Your task to perform on an android device: turn off location history Image 0: 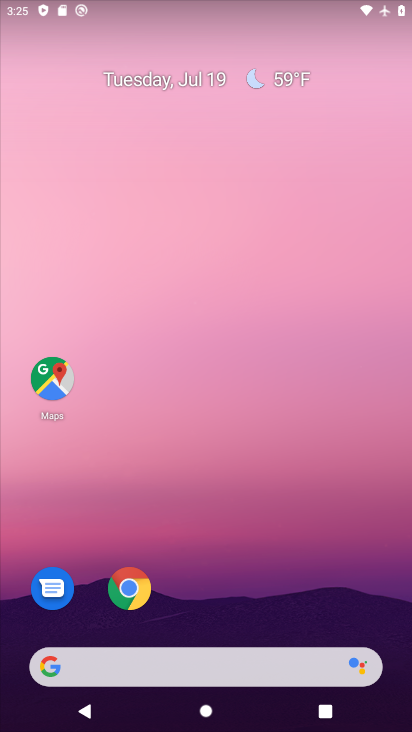
Step 0: press home button
Your task to perform on an android device: turn off location history Image 1: 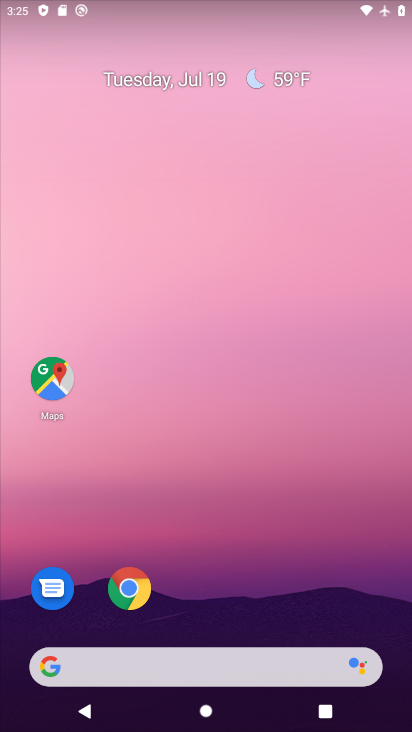
Step 1: drag from (281, 591) to (357, 40)
Your task to perform on an android device: turn off location history Image 2: 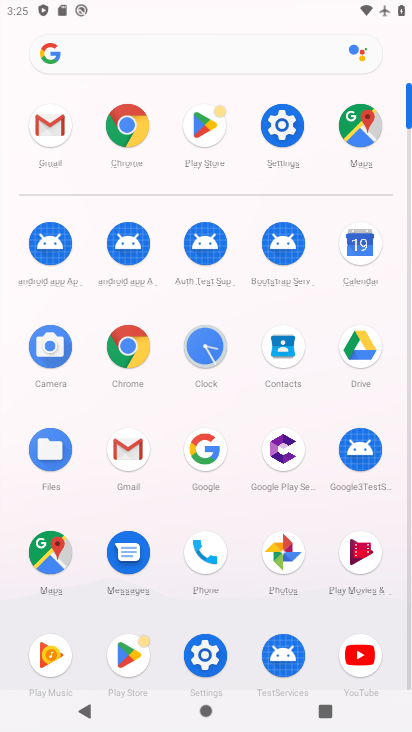
Step 2: click (282, 142)
Your task to perform on an android device: turn off location history Image 3: 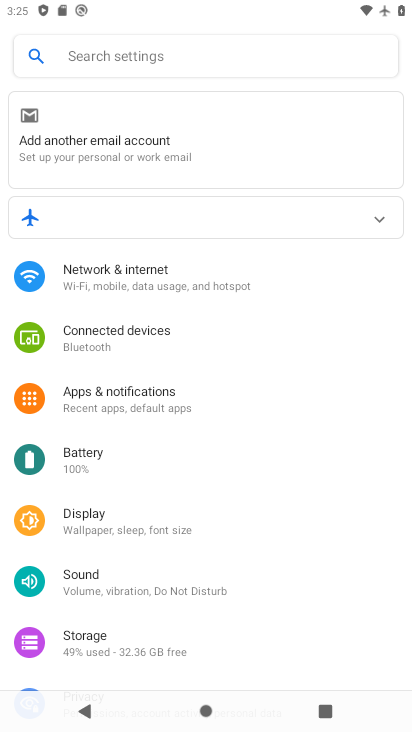
Step 3: drag from (321, 322) to (317, 228)
Your task to perform on an android device: turn off location history Image 4: 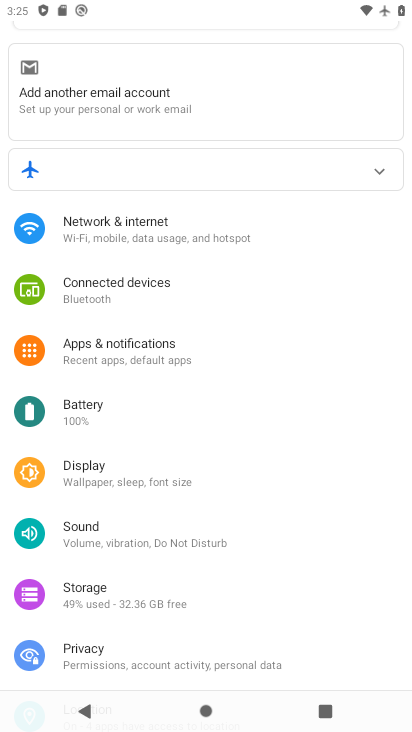
Step 4: drag from (296, 624) to (306, 252)
Your task to perform on an android device: turn off location history Image 5: 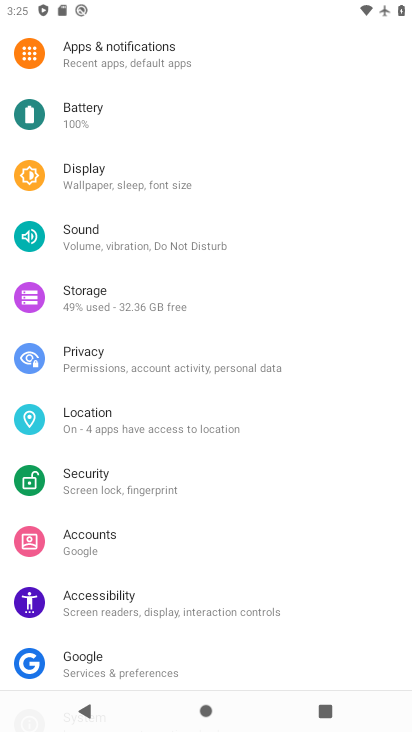
Step 5: click (91, 425)
Your task to perform on an android device: turn off location history Image 6: 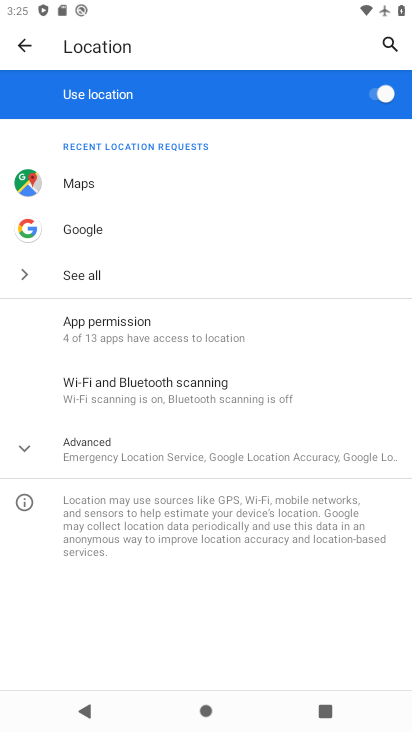
Step 6: click (78, 454)
Your task to perform on an android device: turn off location history Image 7: 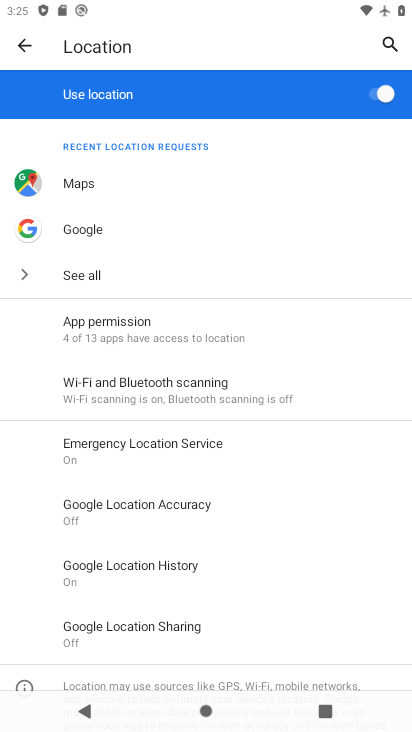
Step 7: click (124, 571)
Your task to perform on an android device: turn off location history Image 8: 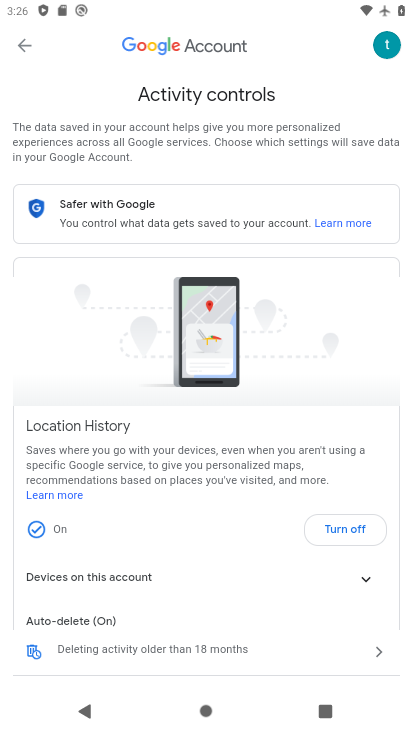
Step 8: click (340, 528)
Your task to perform on an android device: turn off location history Image 9: 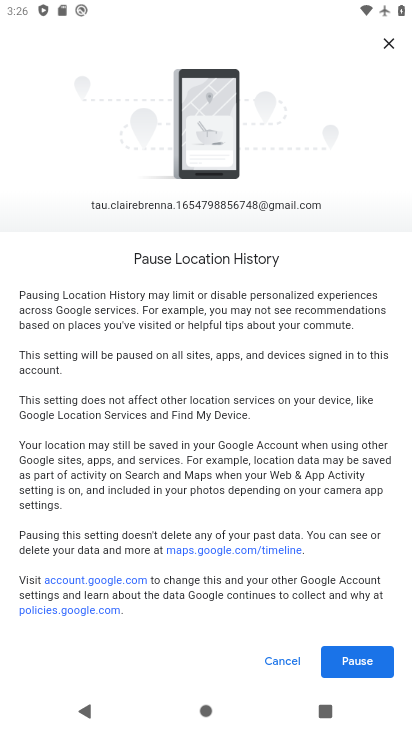
Step 9: click (351, 662)
Your task to perform on an android device: turn off location history Image 10: 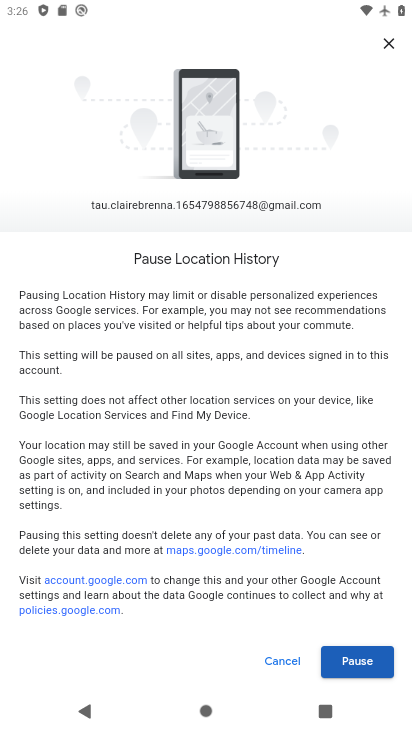
Step 10: click (338, 661)
Your task to perform on an android device: turn off location history Image 11: 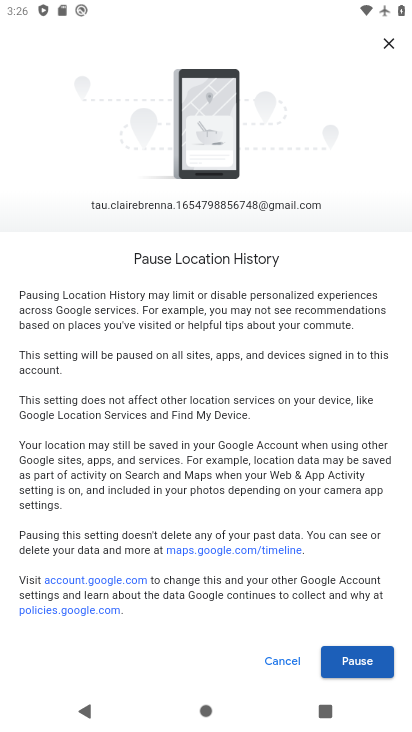
Step 11: click (348, 667)
Your task to perform on an android device: turn off location history Image 12: 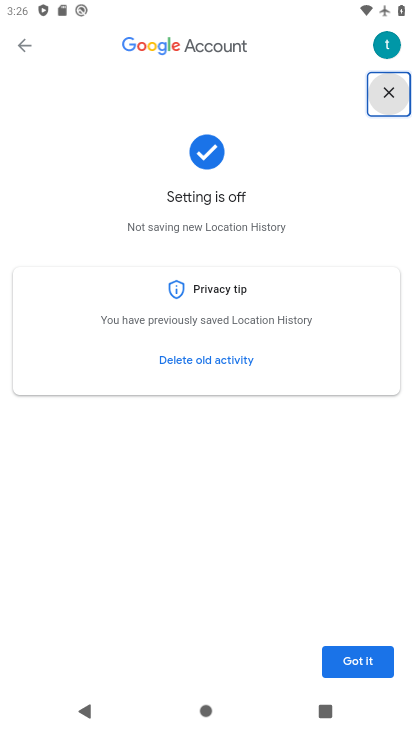
Step 12: click (349, 665)
Your task to perform on an android device: turn off location history Image 13: 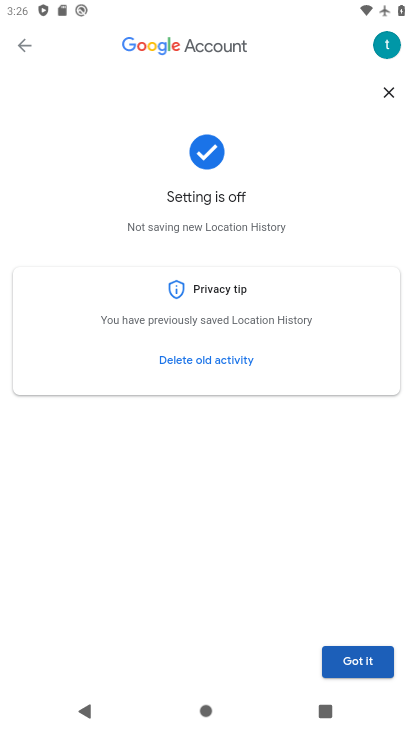
Step 13: click (354, 663)
Your task to perform on an android device: turn off location history Image 14: 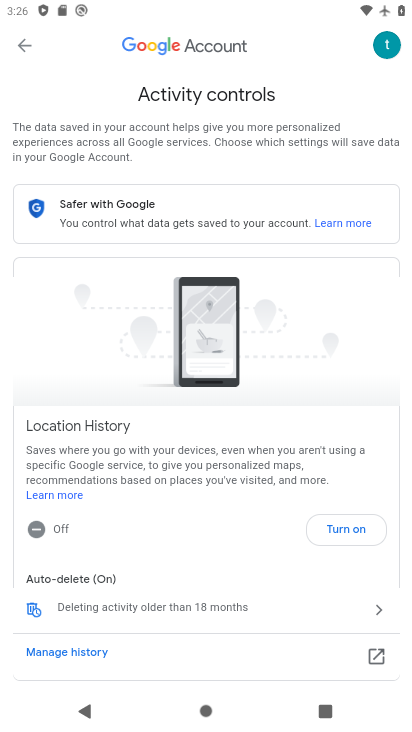
Step 14: task complete